Your task to perform on an android device: Clear the shopping cart on newegg.com. Add "beats solo 3" to the cart on newegg.com Image 0: 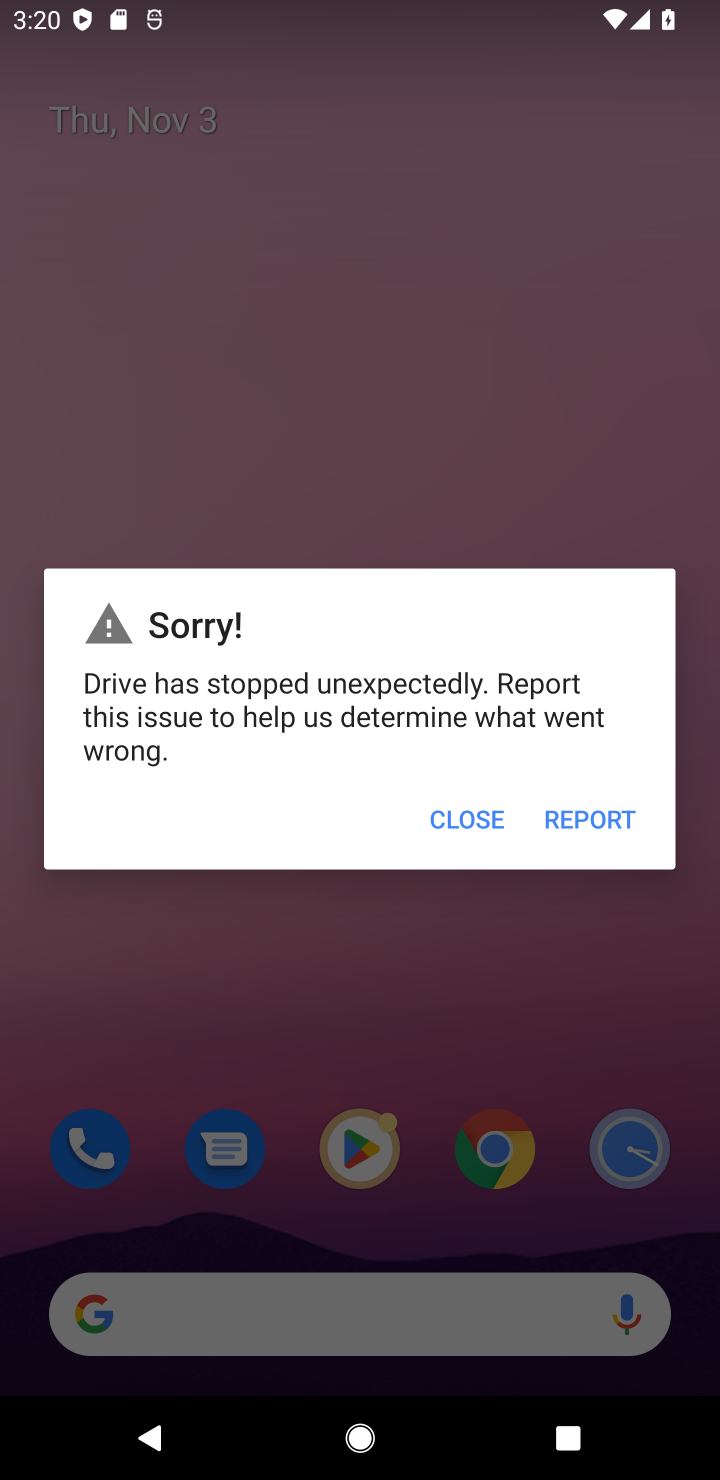
Step 0: click (467, 815)
Your task to perform on an android device: Clear the shopping cart on newegg.com. Add "beats solo 3" to the cart on newegg.com Image 1: 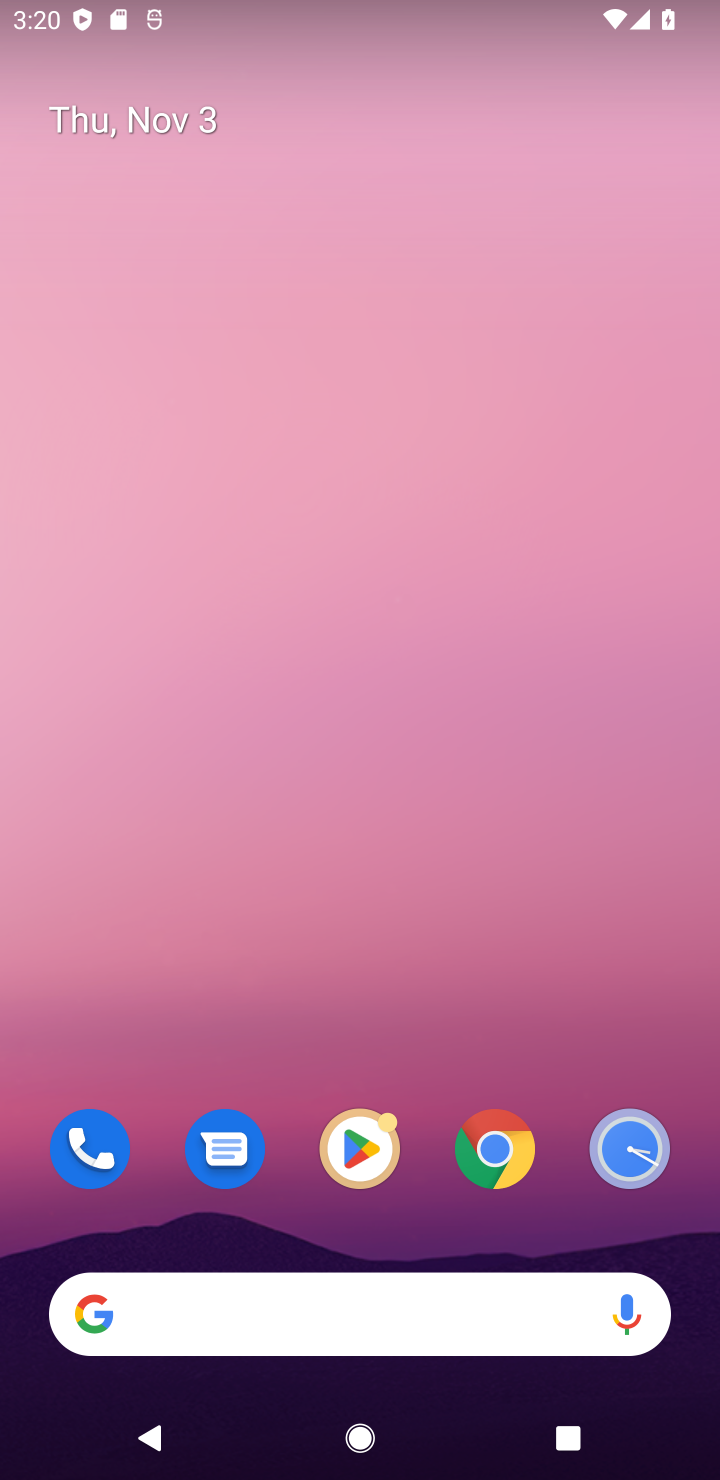
Step 1: click (497, 1157)
Your task to perform on an android device: Clear the shopping cart on newegg.com. Add "beats solo 3" to the cart on newegg.com Image 2: 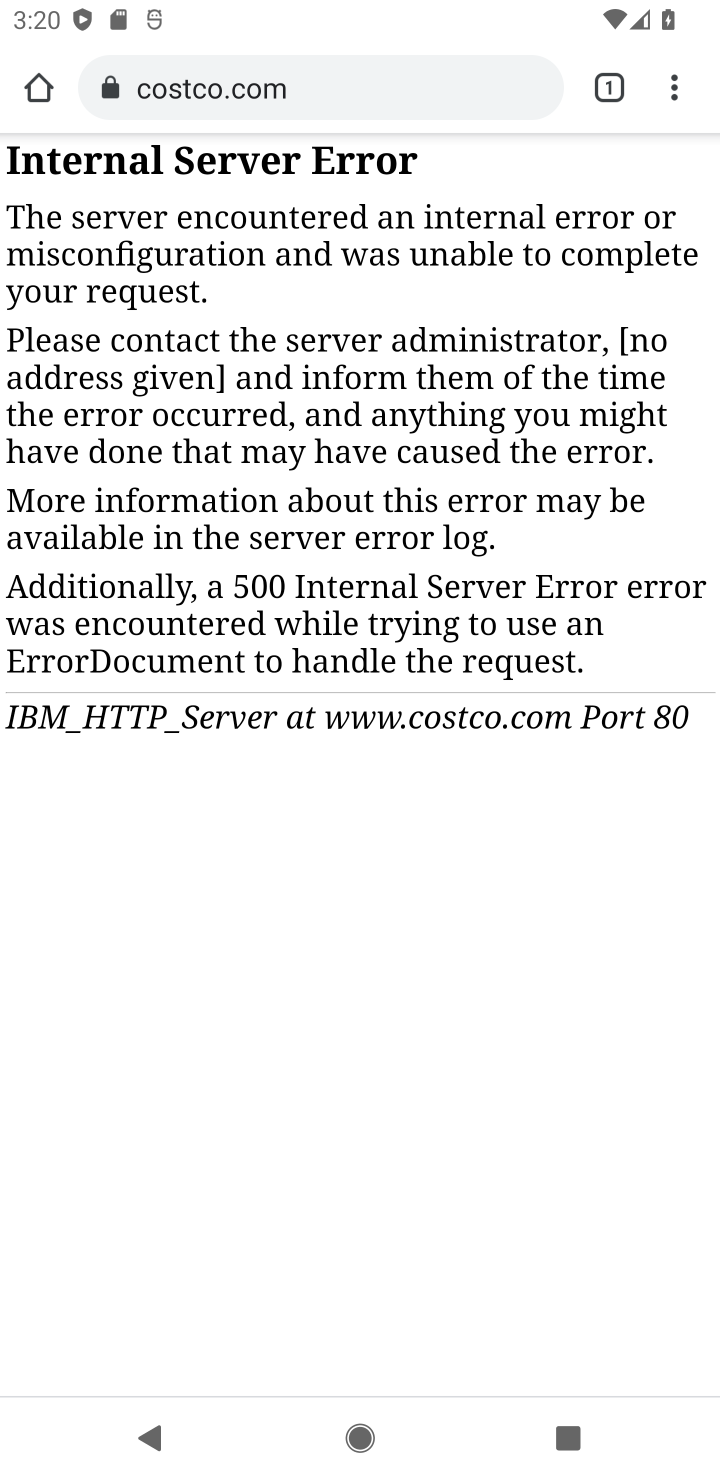
Step 2: click (600, 84)
Your task to perform on an android device: Clear the shopping cart on newegg.com. Add "beats solo 3" to the cart on newegg.com Image 3: 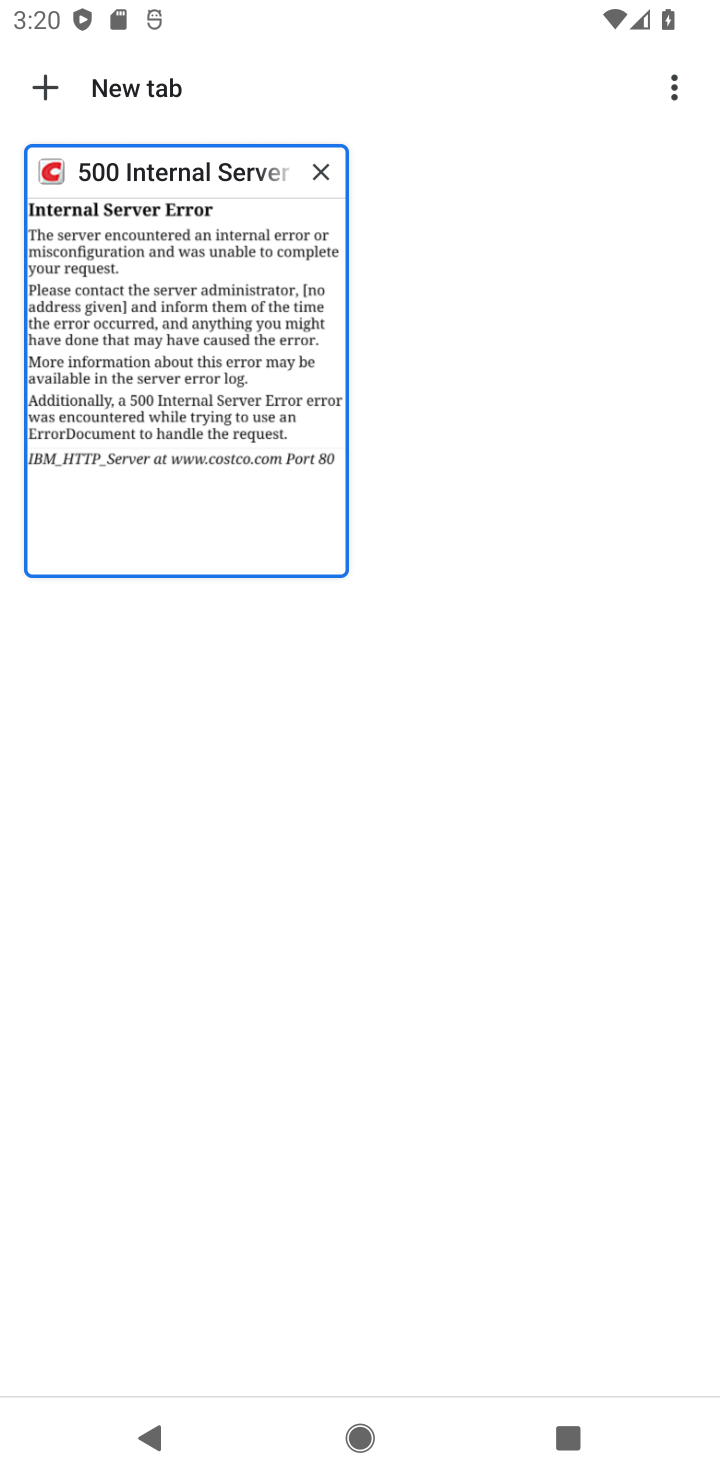
Step 3: click (318, 174)
Your task to perform on an android device: Clear the shopping cart on newegg.com. Add "beats solo 3" to the cart on newegg.com Image 4: 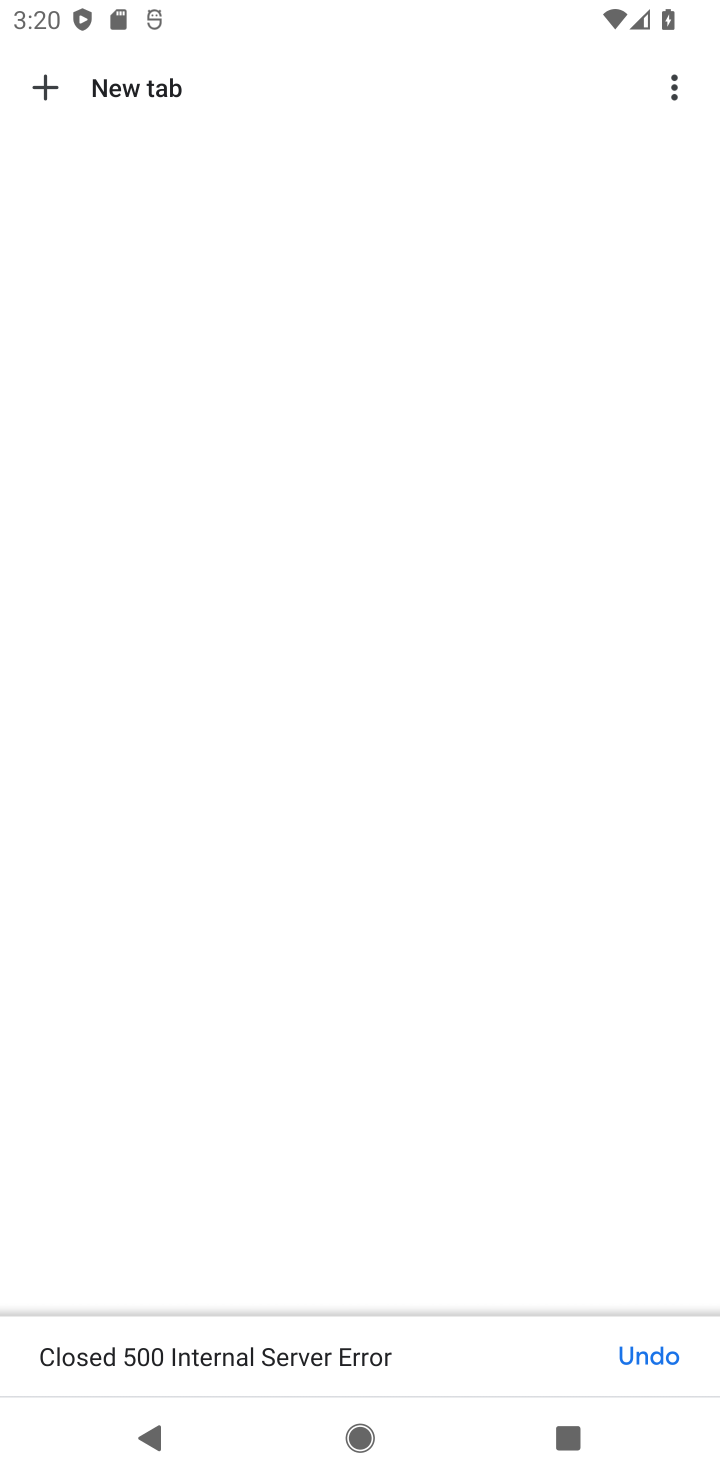
Step 4: click (37, 89)
Your task to perform on an android device: Clear the shopping cart on newegg.com. Add "beats solo 3" to the cart on newegg.com Image 5: 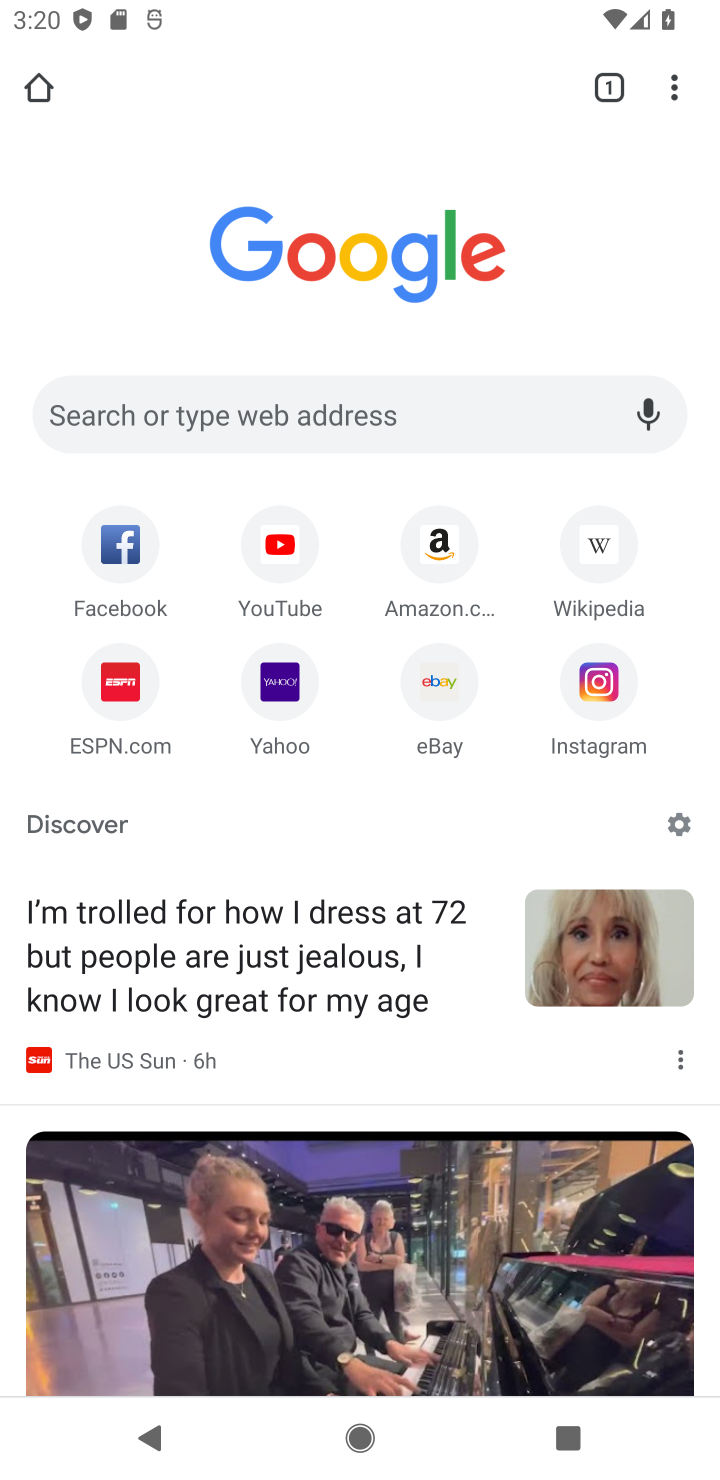
Step 5: click (210, 409)
Your task to perform on an android device: Clear the shopping cart on newegg.com. Add "beats solo 3" to the cart on newegg.com Image 6: 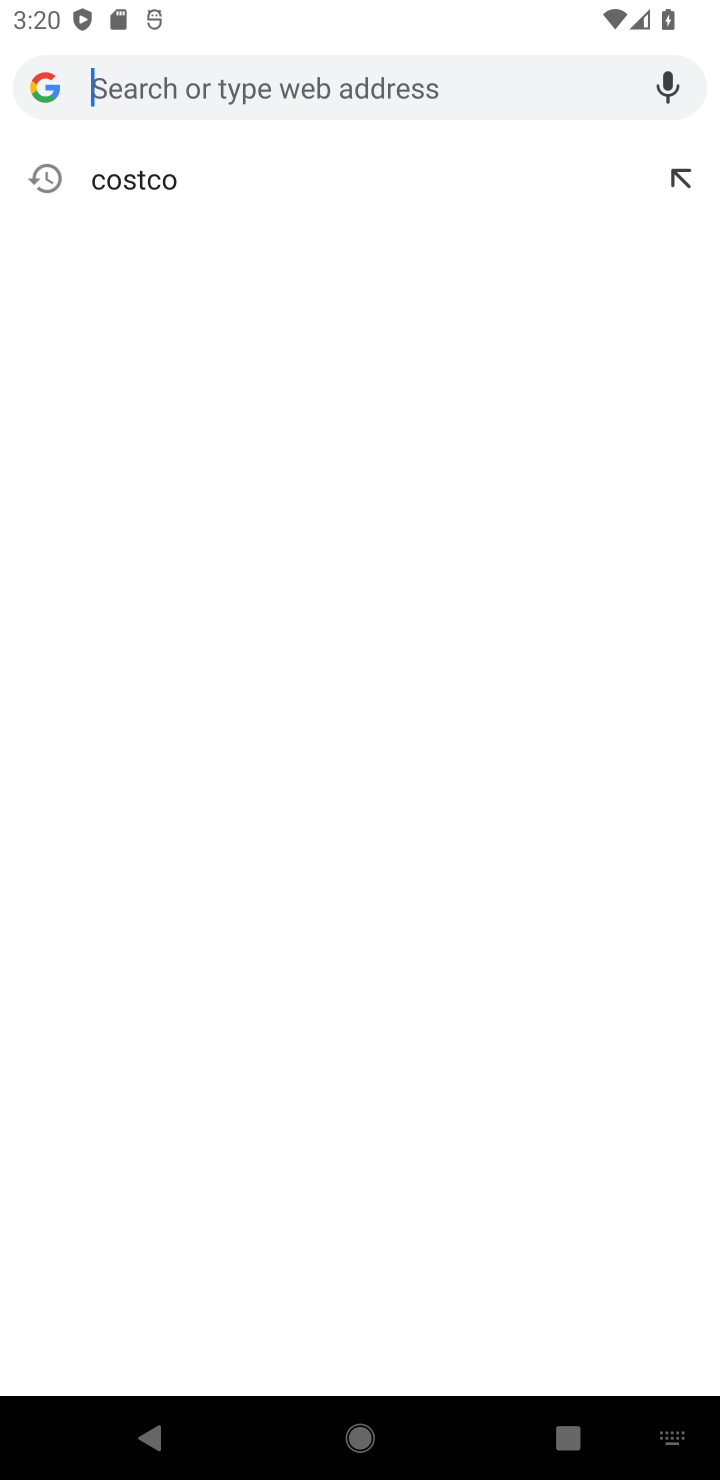
Step 6: type "newegg"
Your task to perform on an android device: Clear the shopping cart on newegg.com. Add "beats solo 3" to the cart on newegg.com Image 7: 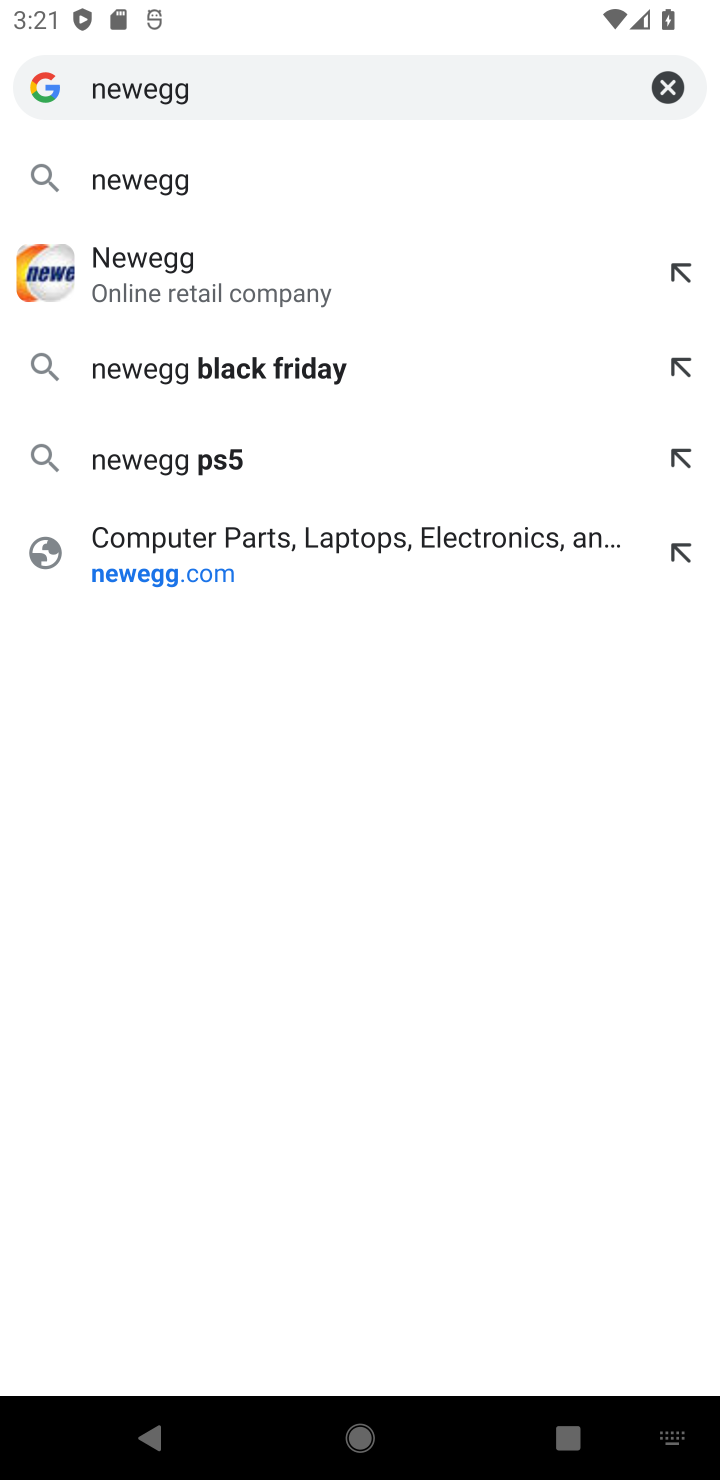
Step 7: click (143, 298)
Your task to perform on an android device: Clear the shopping cart on newegg.com. Add "beats solo 3" to the cart on newegg.com Image 8: 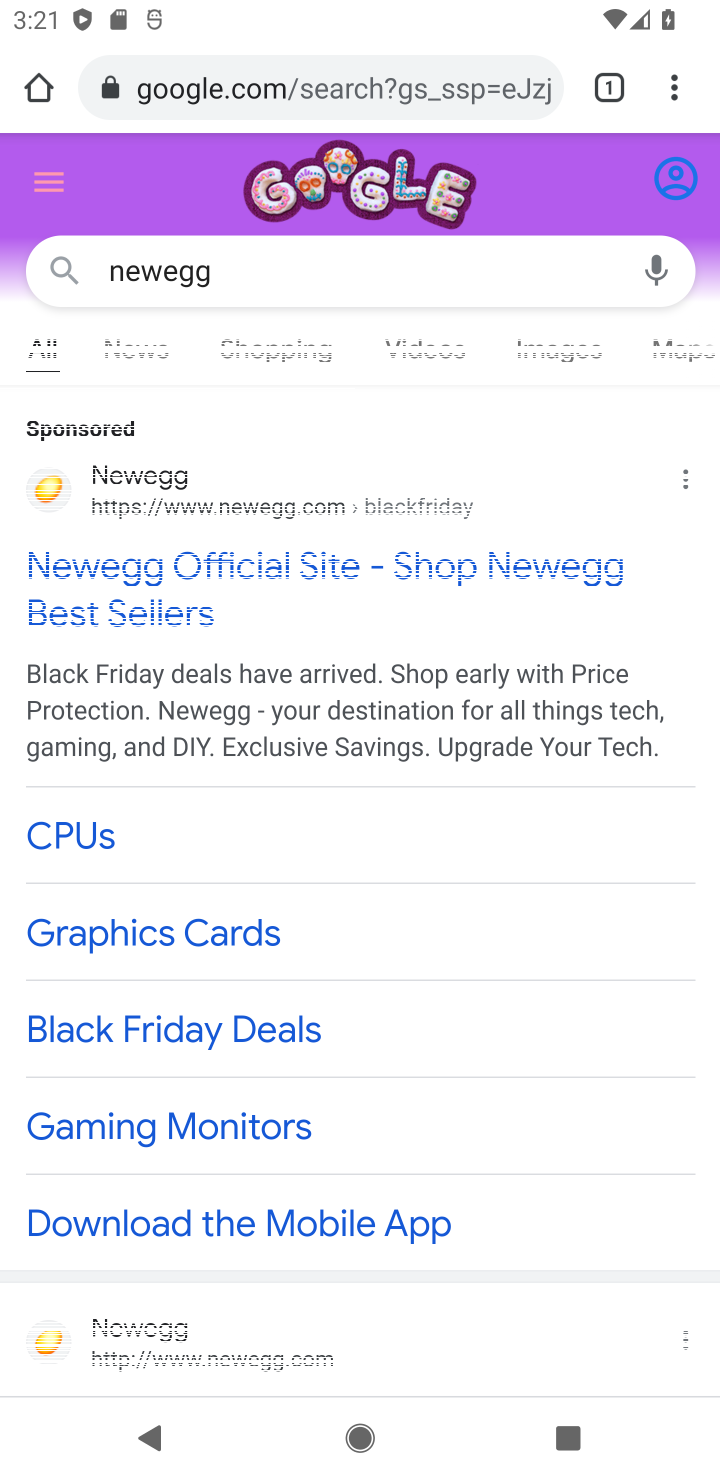
Step 8: drag from (352, 998) to (535, 54)
Your task to perform on an android device: Clear the shopping cart on newegg.com. Add "beats solo 3" to the cart on newegg.com Image 9: 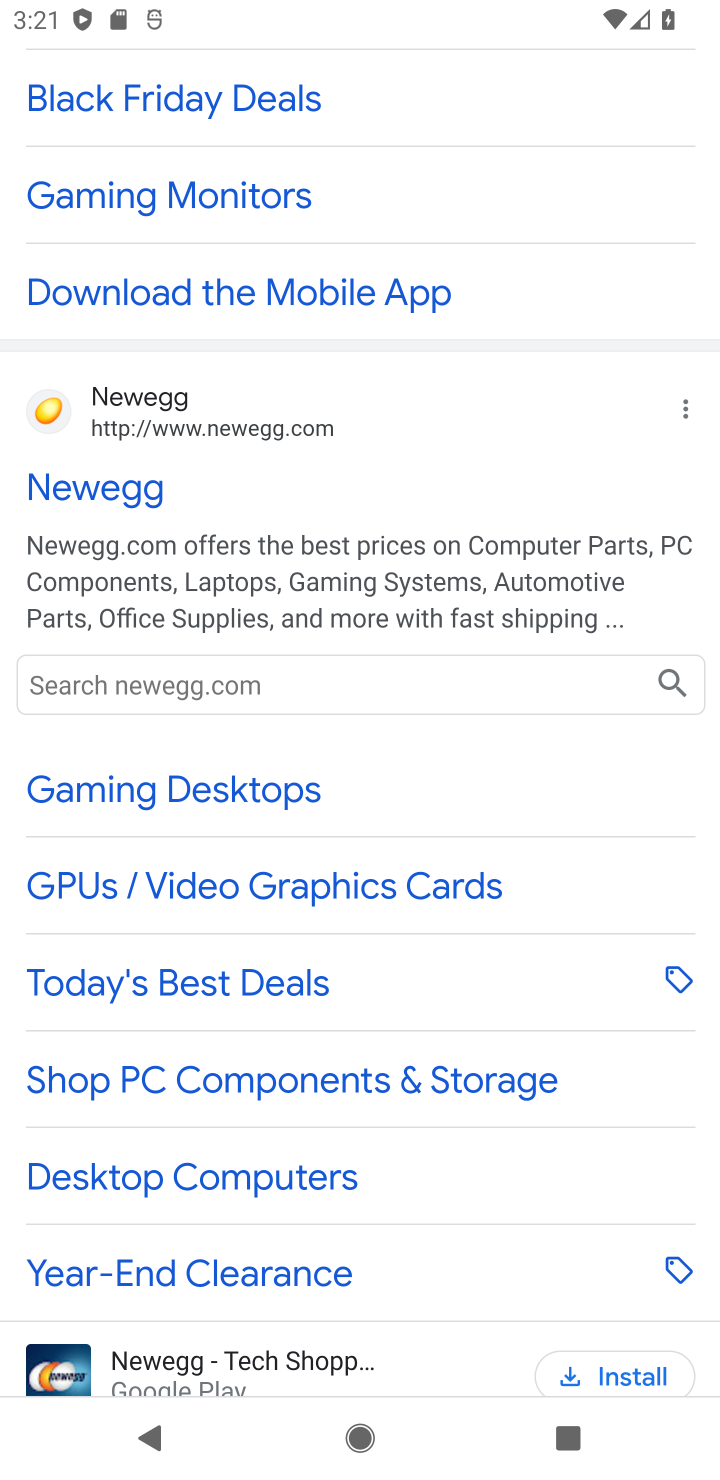
Step 9: click (102, 667)
Your task to perform on an android device: Clear the shopping cart on newegg.com. Add "beats solo 3" to the cart on newegg.com Image 10: 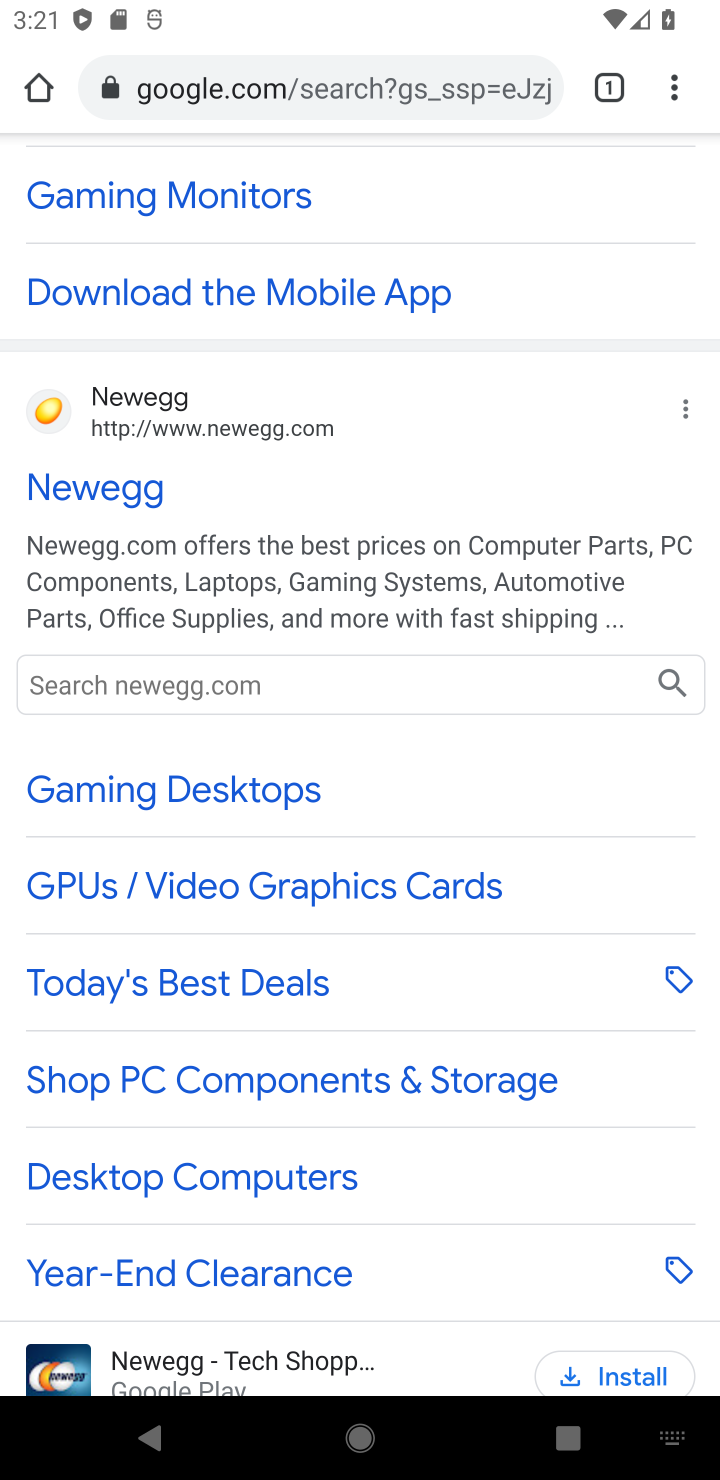
Step 10: type "beats solo 3"
Your task to perform on an android device: Clear the shopping cart on newegg.com. Add "beats solo 3" to the cart on newegg.com Image 11: 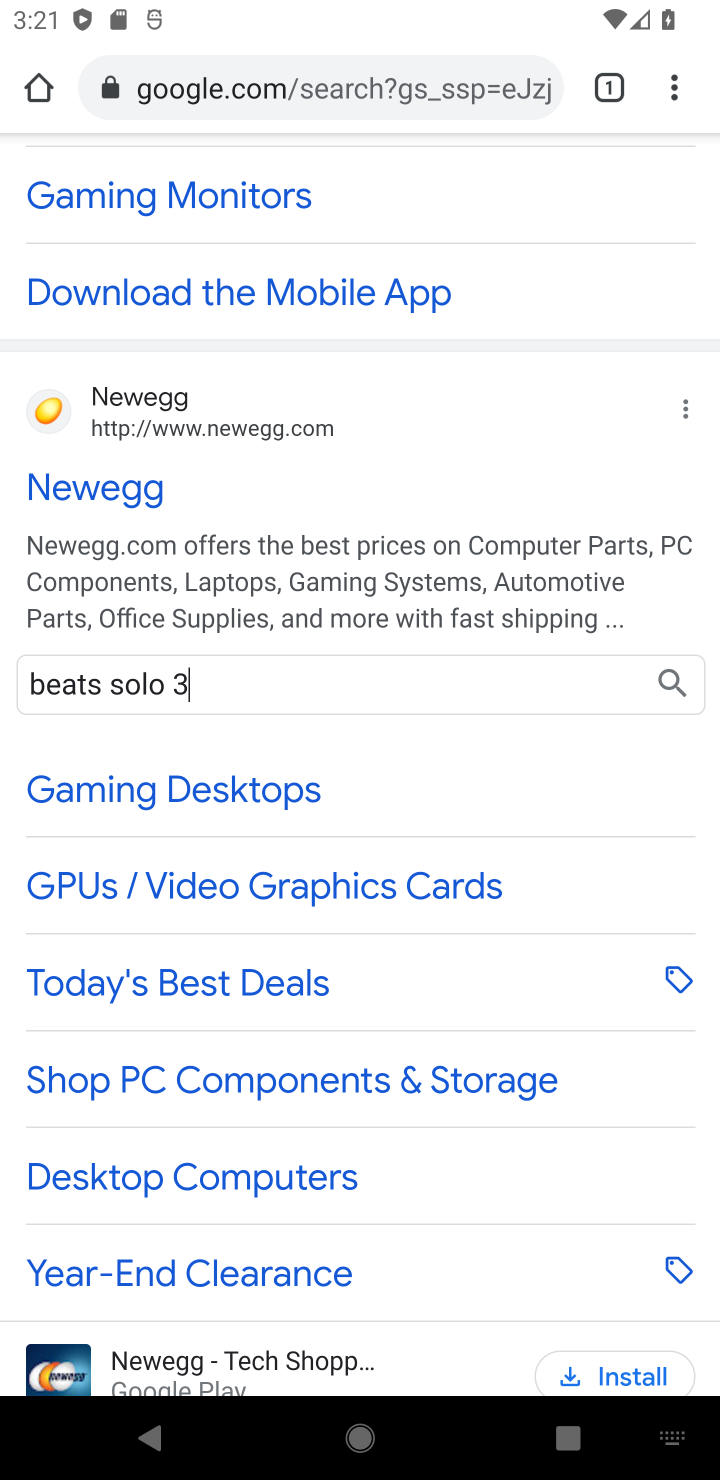
Step 11: click (677, 678)
Your task to perform on an android device: Clear the shopping cart on newegg.com. Add "beats solo 3" to the cart on newegg.com Image 12: 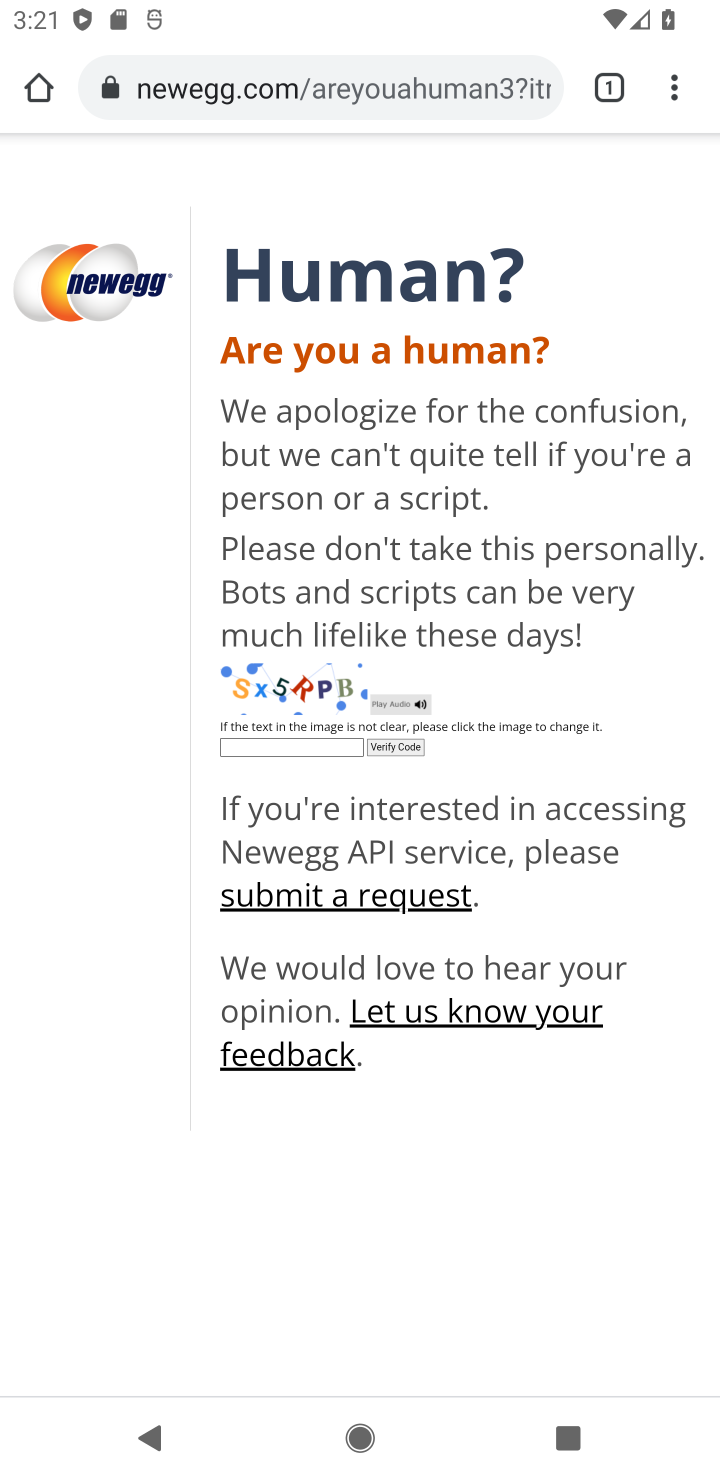
Step 12: click (297, 745)
Your task to perform on an android device: Clear the shopping cart on newegg.com. Add "beats solo 3" to the cart on newegg.com Image 13: 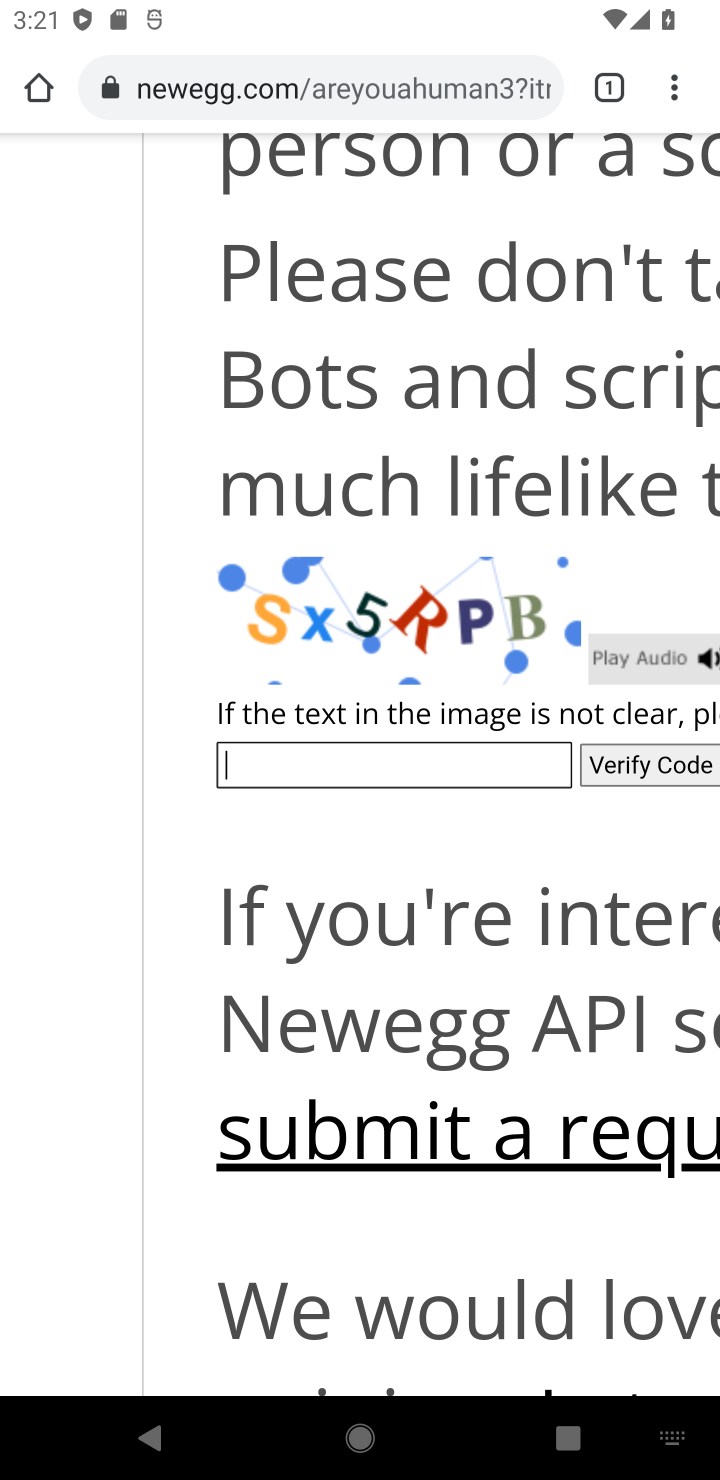
Step 13: type "Sx5RPB"
Your task to perform on an android device: Clear the shopping cart on newegg.com. Add "beats solo 3" to the cart on newegg.com Image 14: 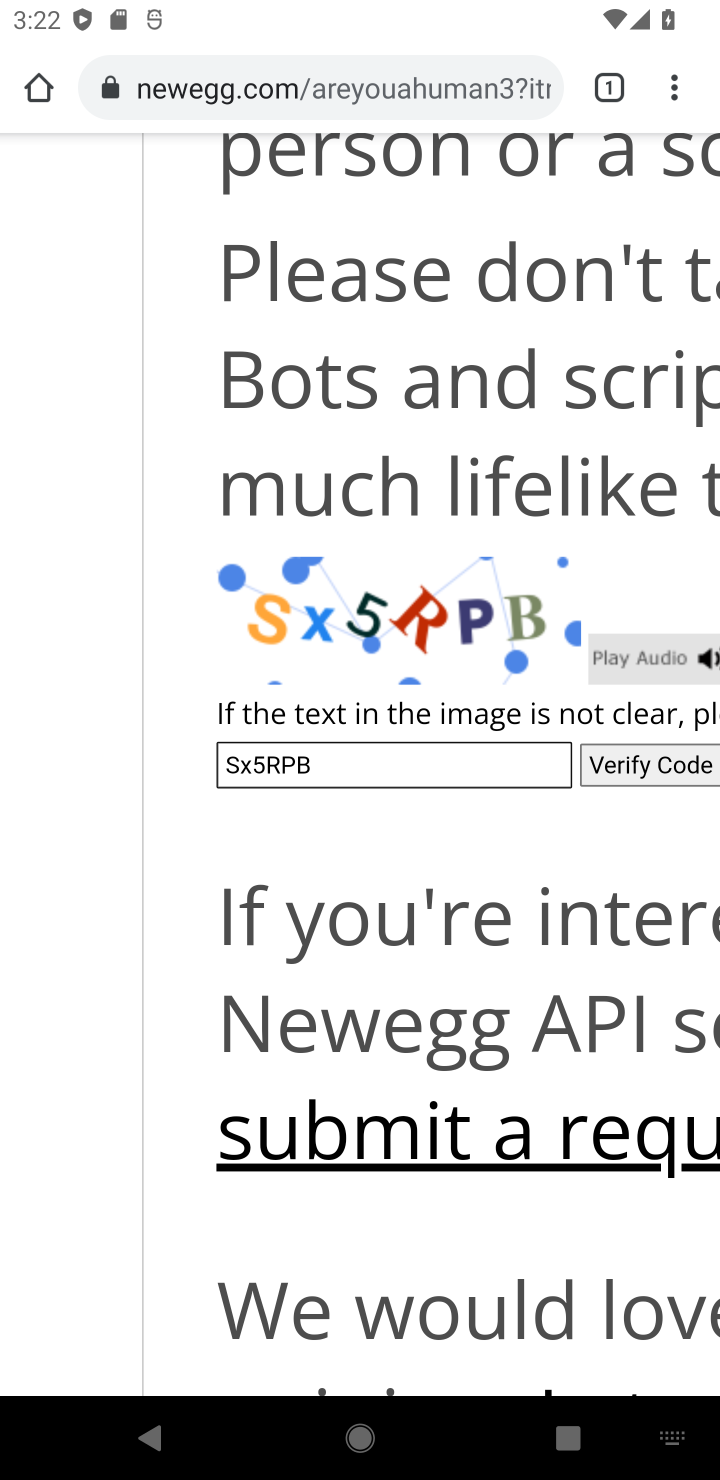
Step 14: click (646, 756)
Your task to perform on an android device: Clear the shopping cart on newegg.com. Add "beats solo 3" to the cart on newegg.com Image 15: 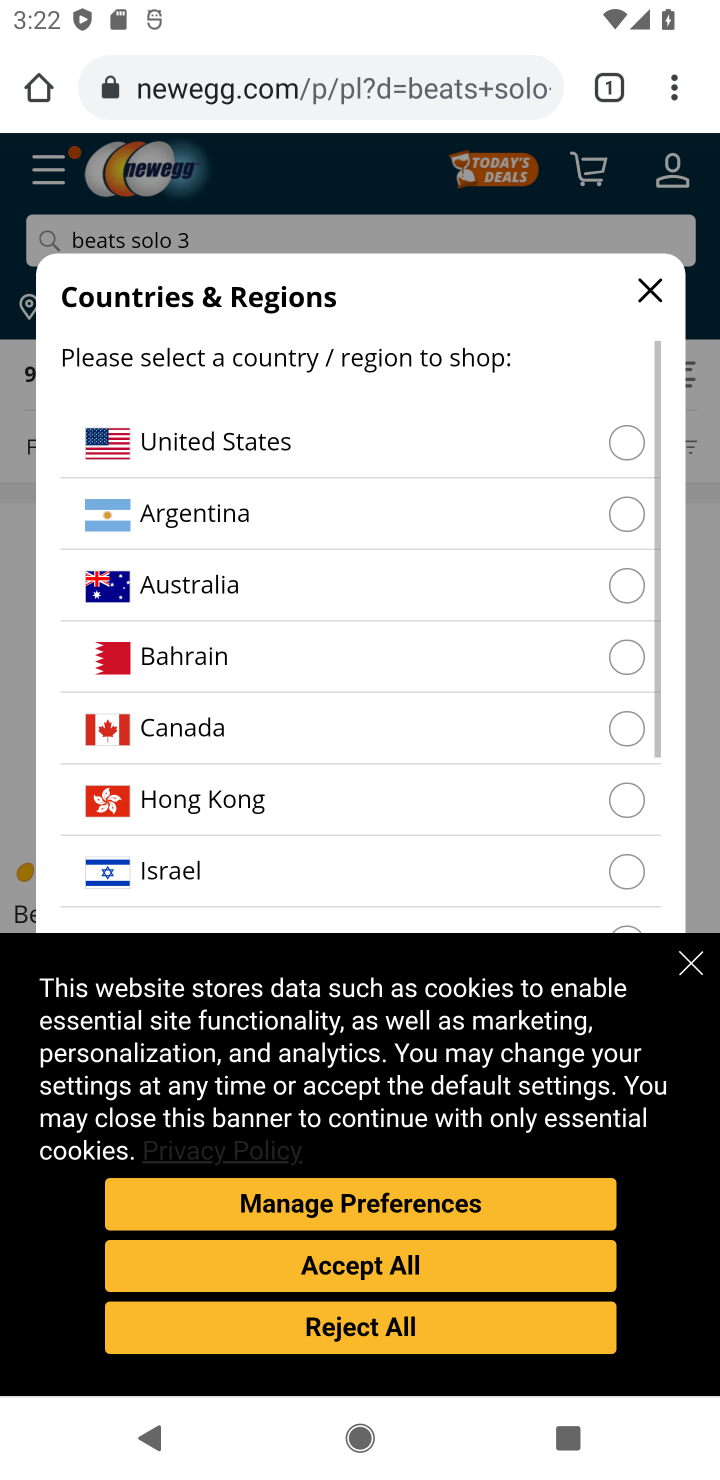
Step 15: click (692, 969)
Your task to perform on an android device: Clear the shopping cart on newegg.com. Add "beats solo 3" to the cart on newegg.com Image 16: 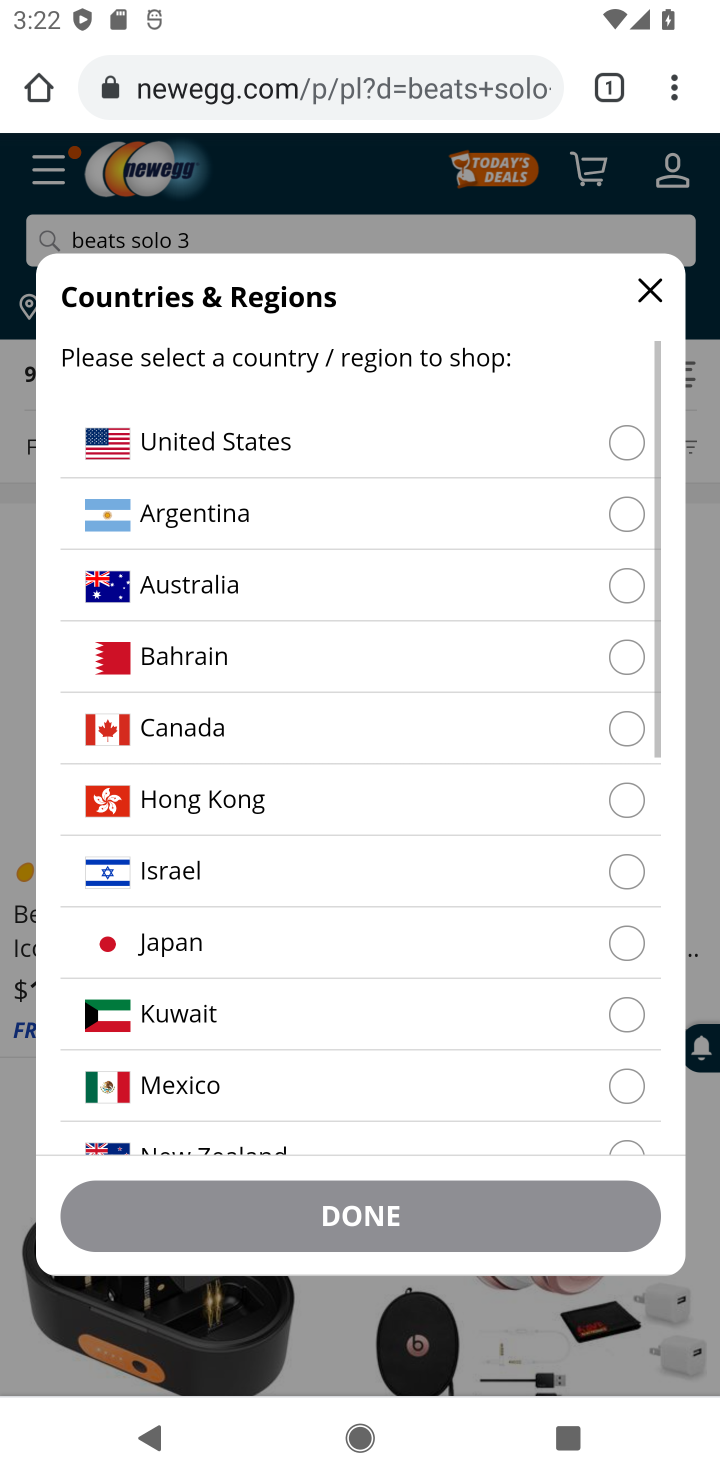
Step 16: click (624, 435)
Your task to perform on an android device: Clear the shopping cart on newegg.com. Add "beats solo 3" to the cart on newegg.com Image 17: 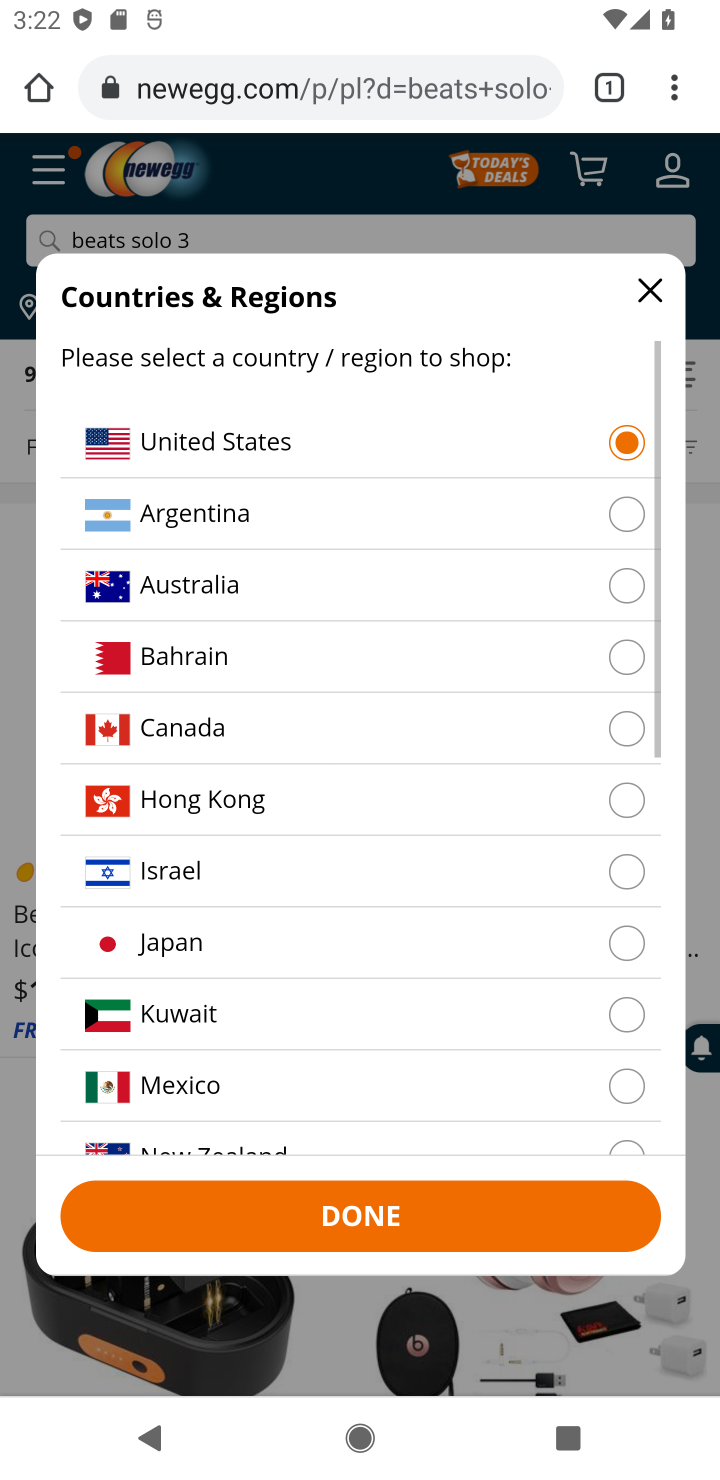
Step 17: click (437, 1218)
Your task to perform on an android device: Clear the shopping cart on newegg.com. Add "beats solo 3" to the cart on newegg.com Image 18: 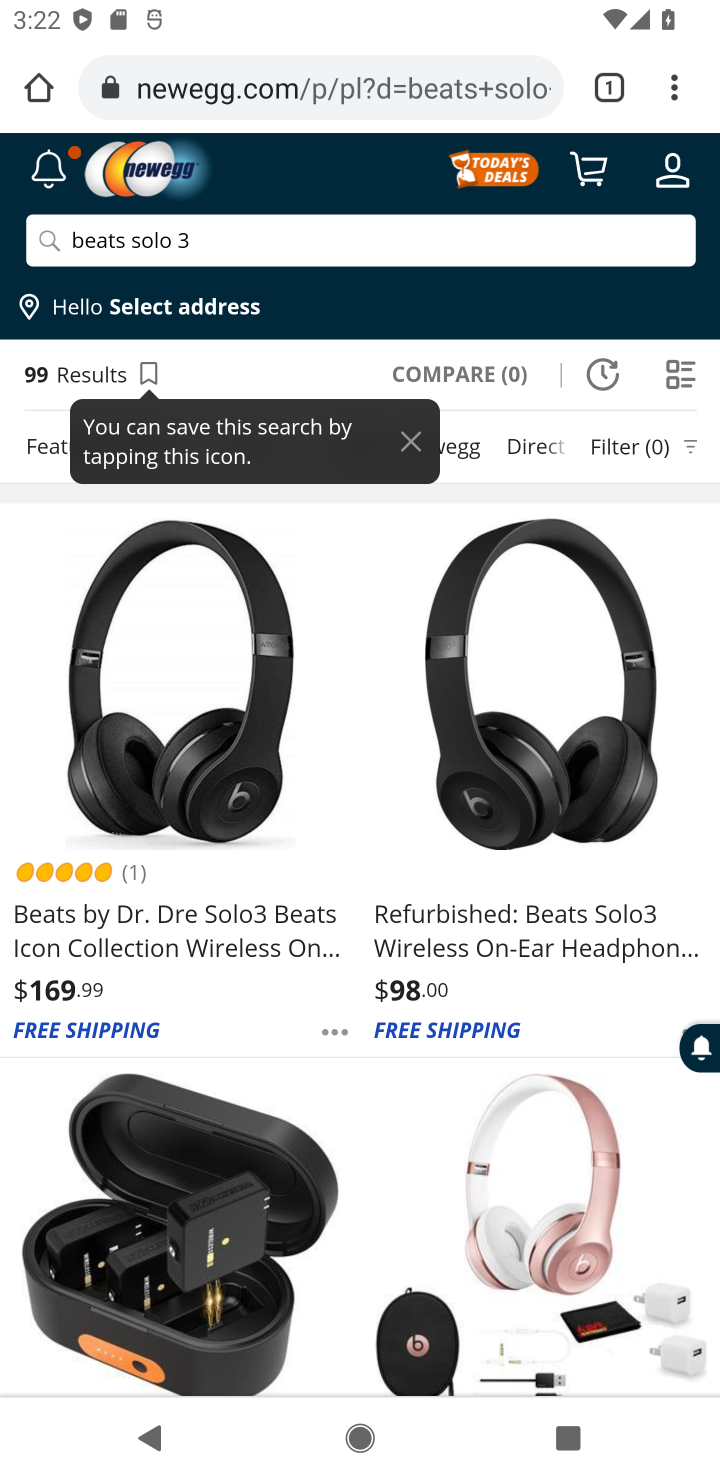
Step 18: click (501, 943)
Your task to perform on an android device: Clear the shopping cart on newegg.com. Add "beats solo 3" to the cart on newegg.com Image 19: 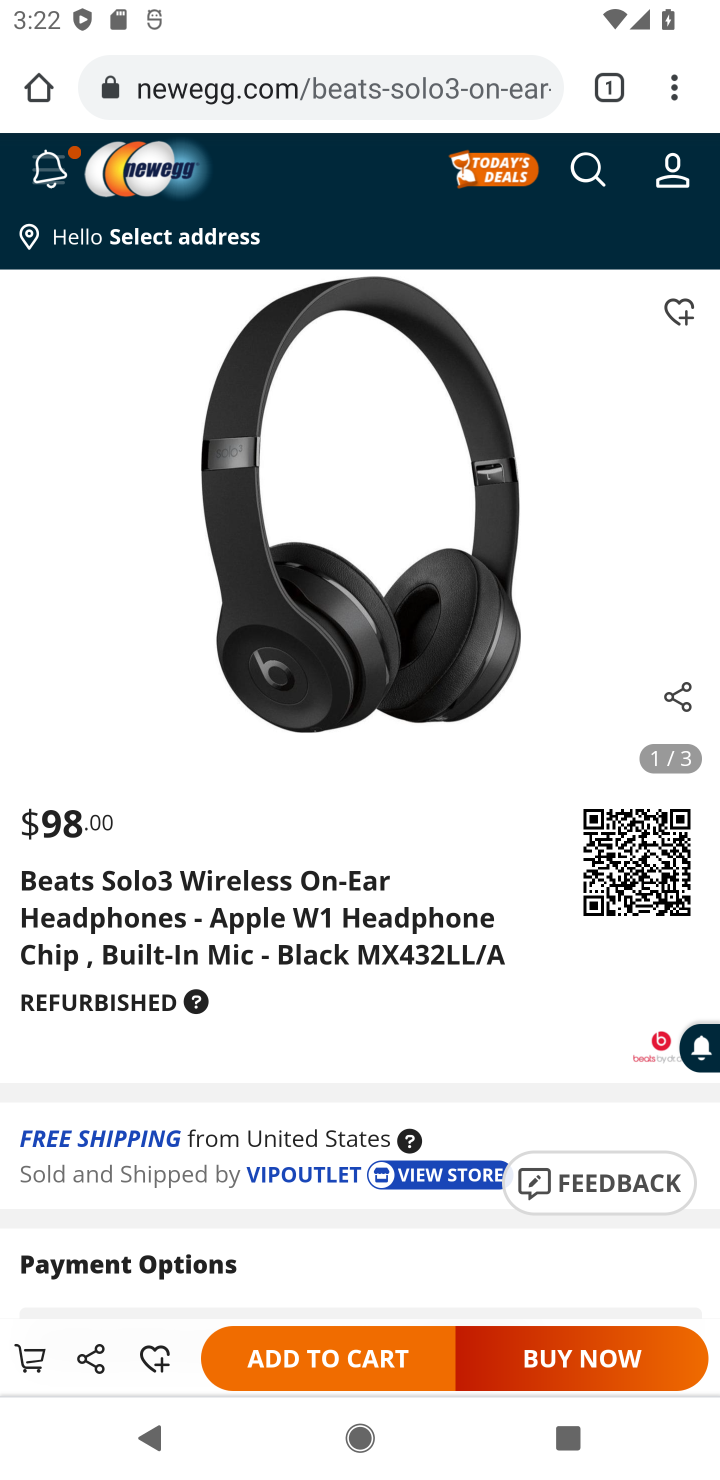
Step 19: click (366, 1358)
Your task to perform on an android device: Clear the shopping cart on newegg.com. Add "beats solo 3" to the cart on newegg.com Image 20: 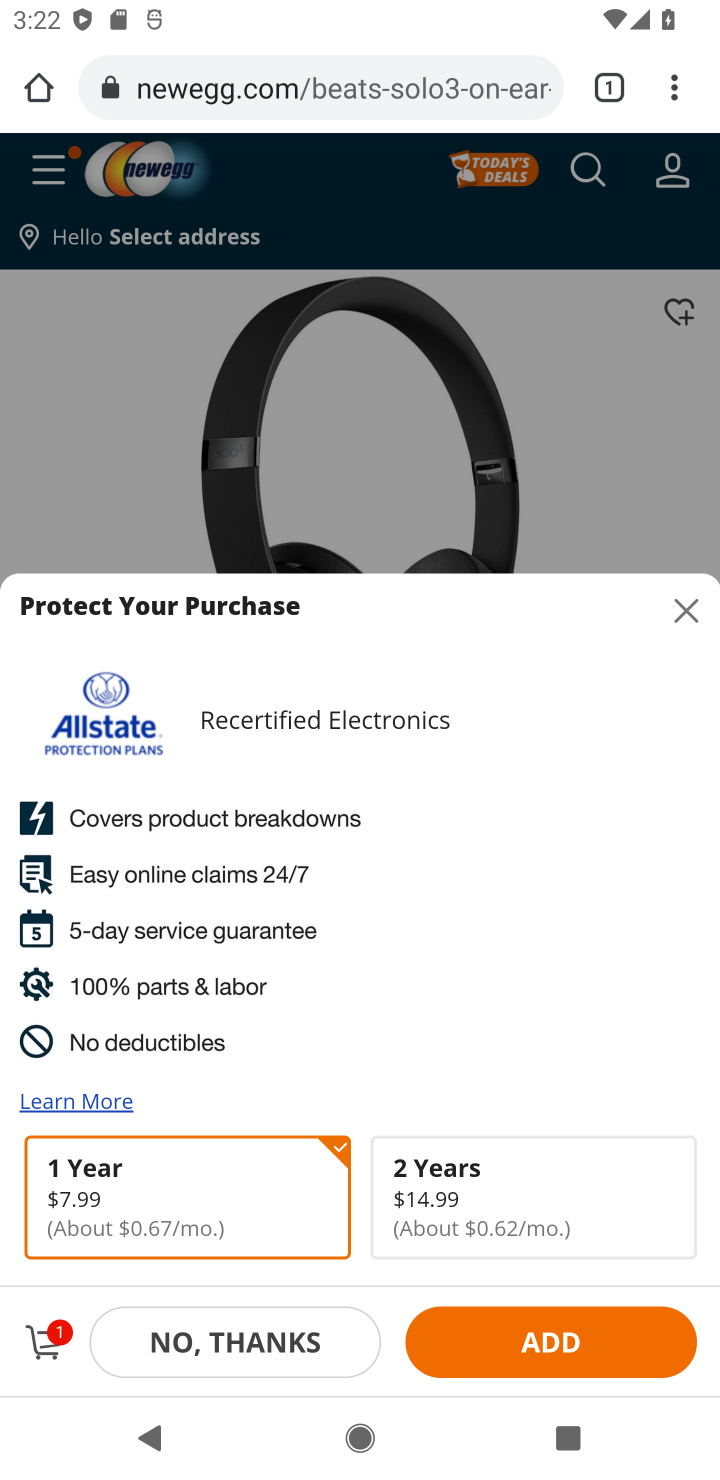
Step 20: task complete